Your task to perform on an android device: Add "dell xps" to the cart on target.com Image 0: 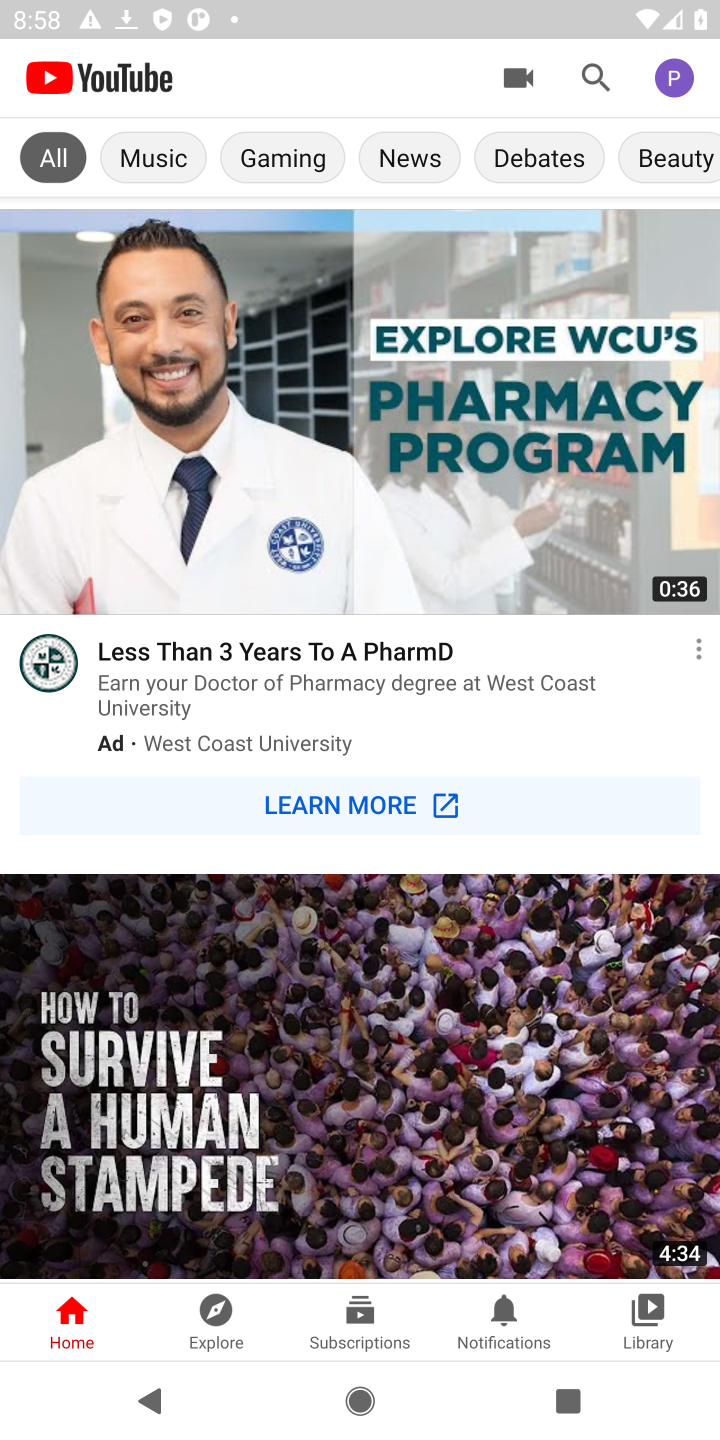
Step 0: press home button
Your task to perform on an android device: Add "dell xps" to the cart on target.com Image 1: 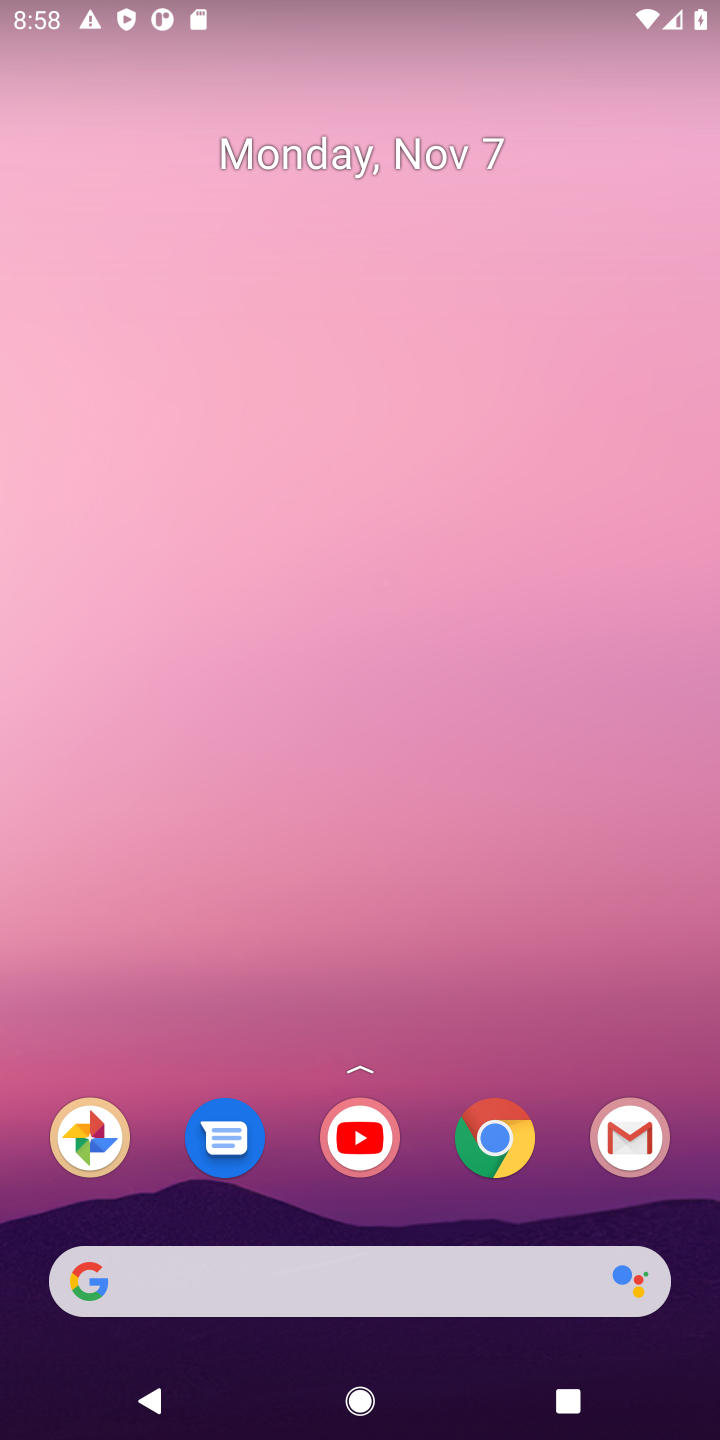
Step 1: drag from (446, 1113) to (380, 346)
Your task to perform on an android device: Add "dell xps" to the cart on target.com Image 2: 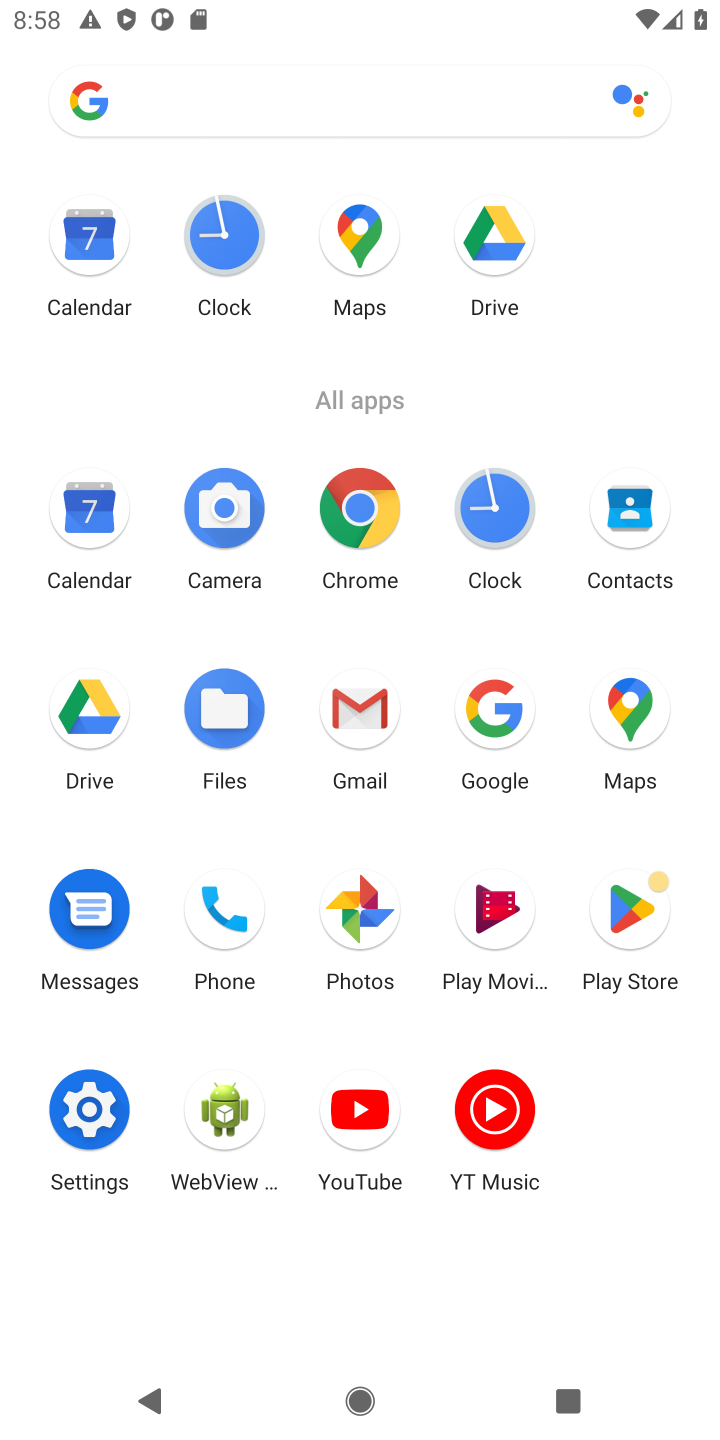
Step 2: click (358, 515)
Your task to perform on an android device: Add "dell xps" to the cart on target.com Image 3: 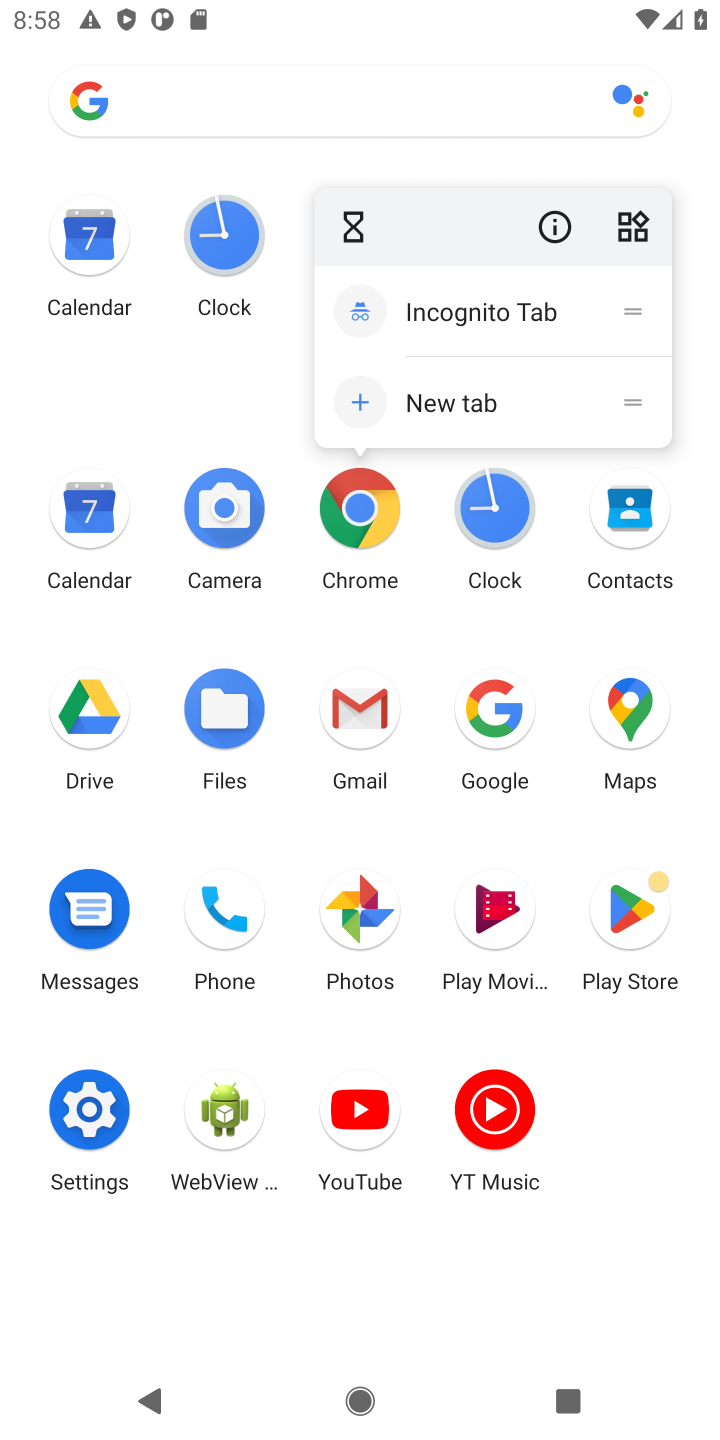
Step 3: click (358, 515)
Your task to perform on an android device: Add "dell xps" to the cart on target.com Image 4: 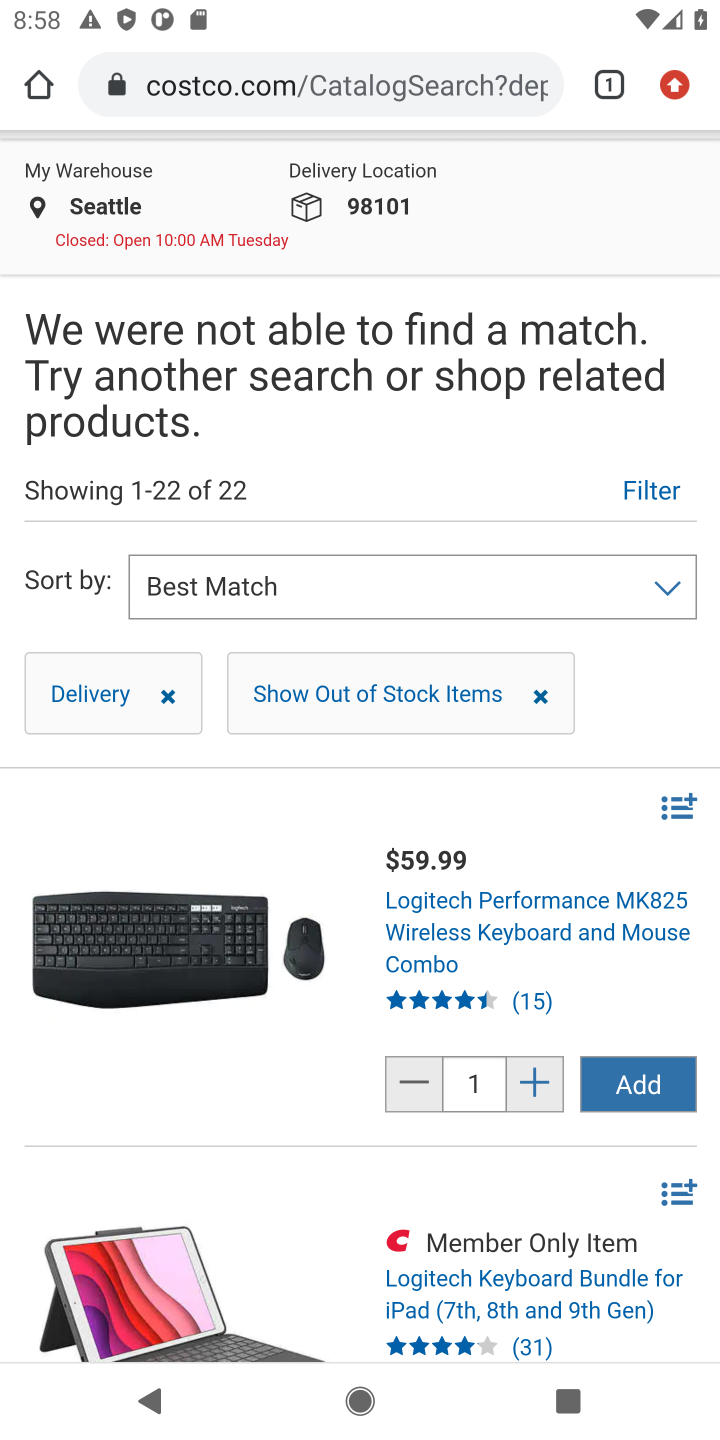
Step 4: click (380, 93)
Your task to perform on an android device: Add "dell xps" to the cart on target.com Image 5: 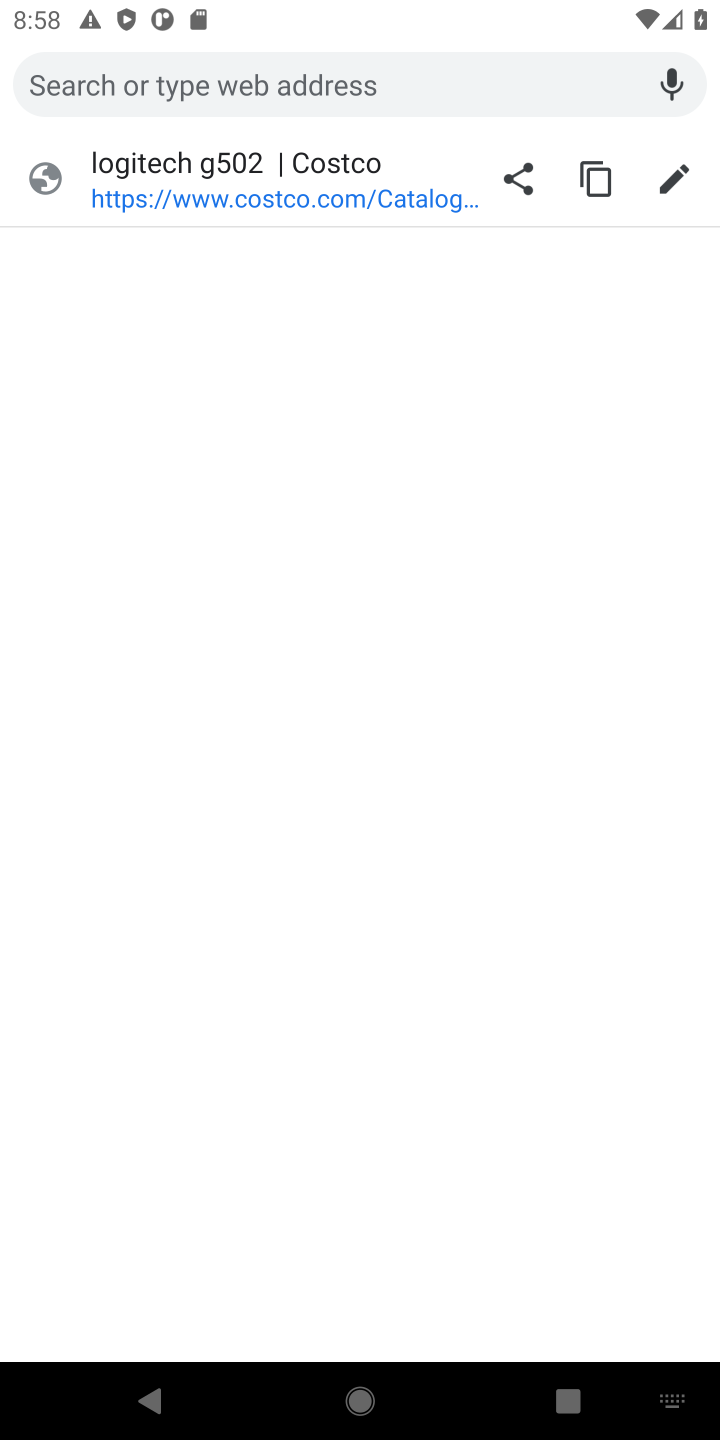
Step 5: type "target.com"
Your task to perform on an android device: Add "dell xps" to the cart on target.com Image 6: 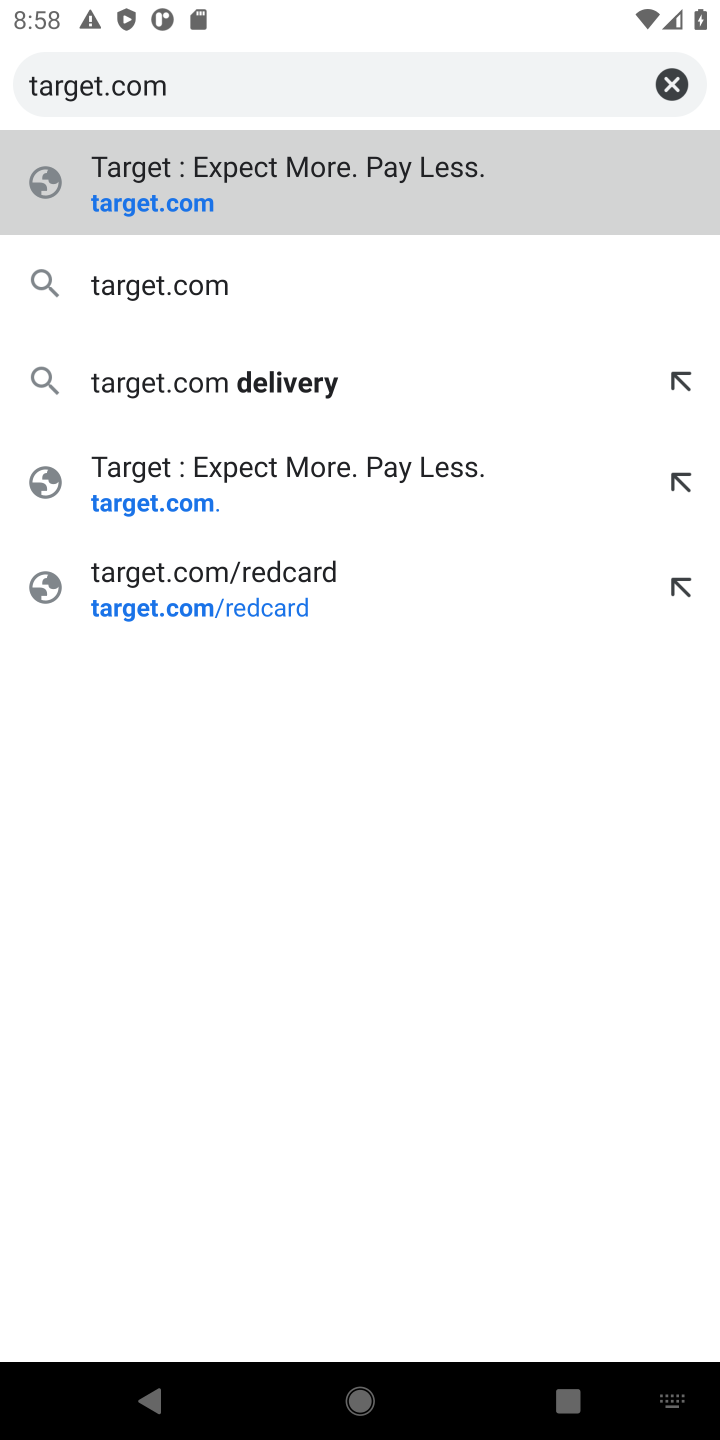
Step 6: press enter
Your task to perform on an android device: Add "dell xps" to the cart on target.com Image 7: 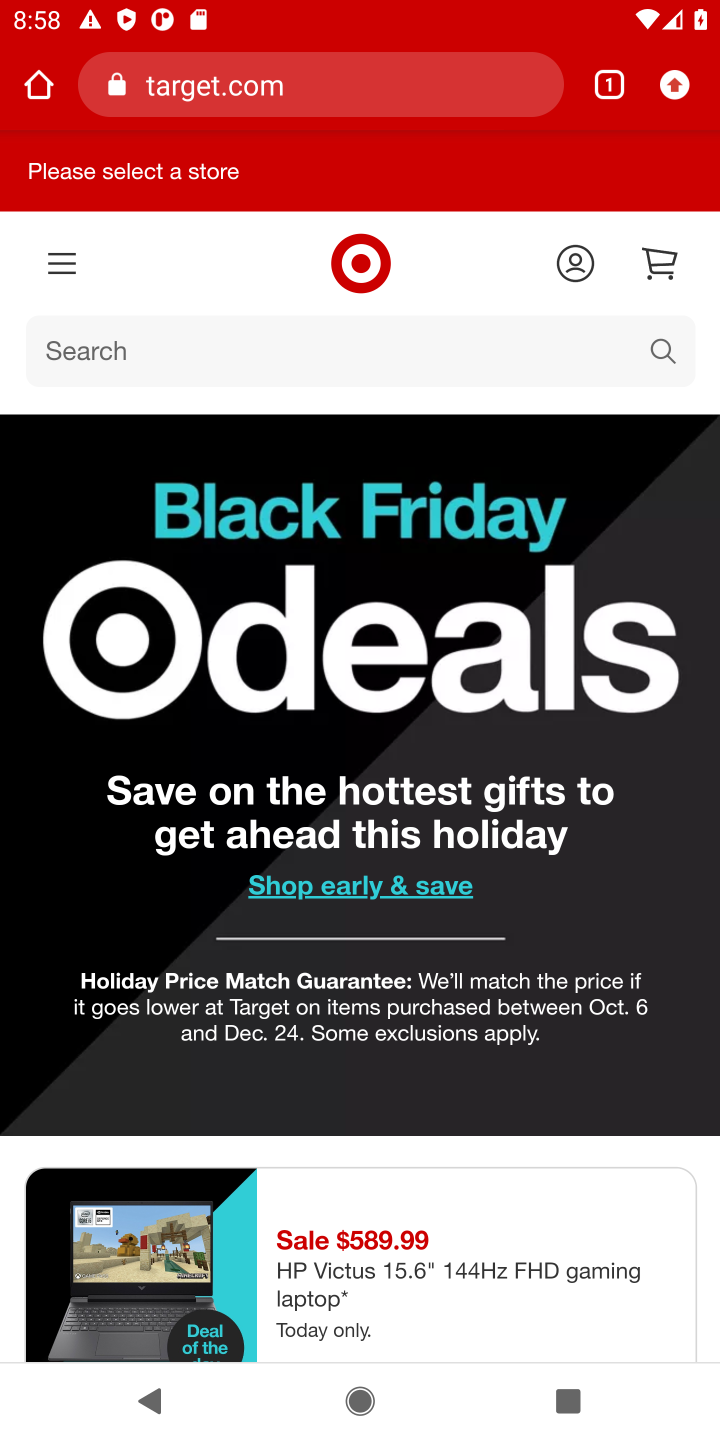
Step 7: click (393, 343)
Your task to perform on an android device: Add "dell xps" to the cart on target.com Image 8: 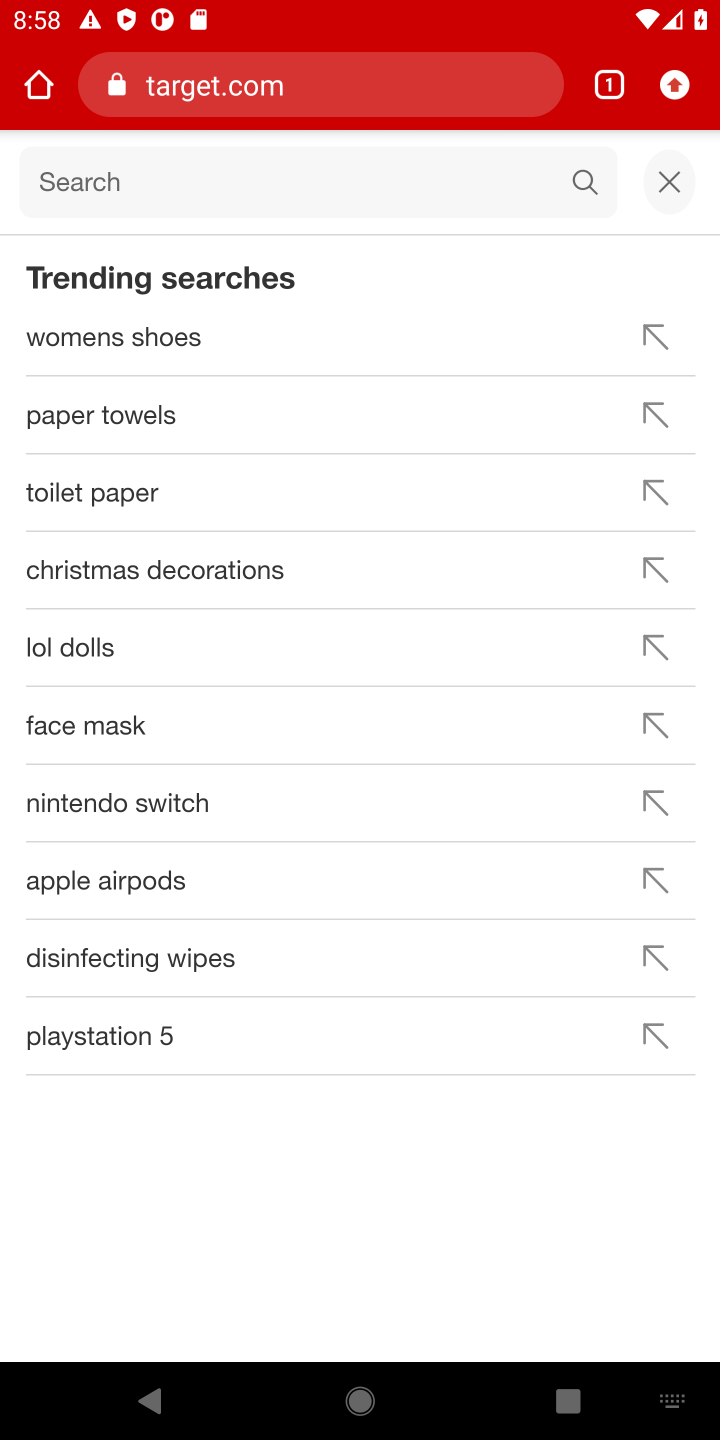
Step 8: type "dell xps"
Your task to perform on an android device: Add "dell xps" to the cart on target.com Image 9: 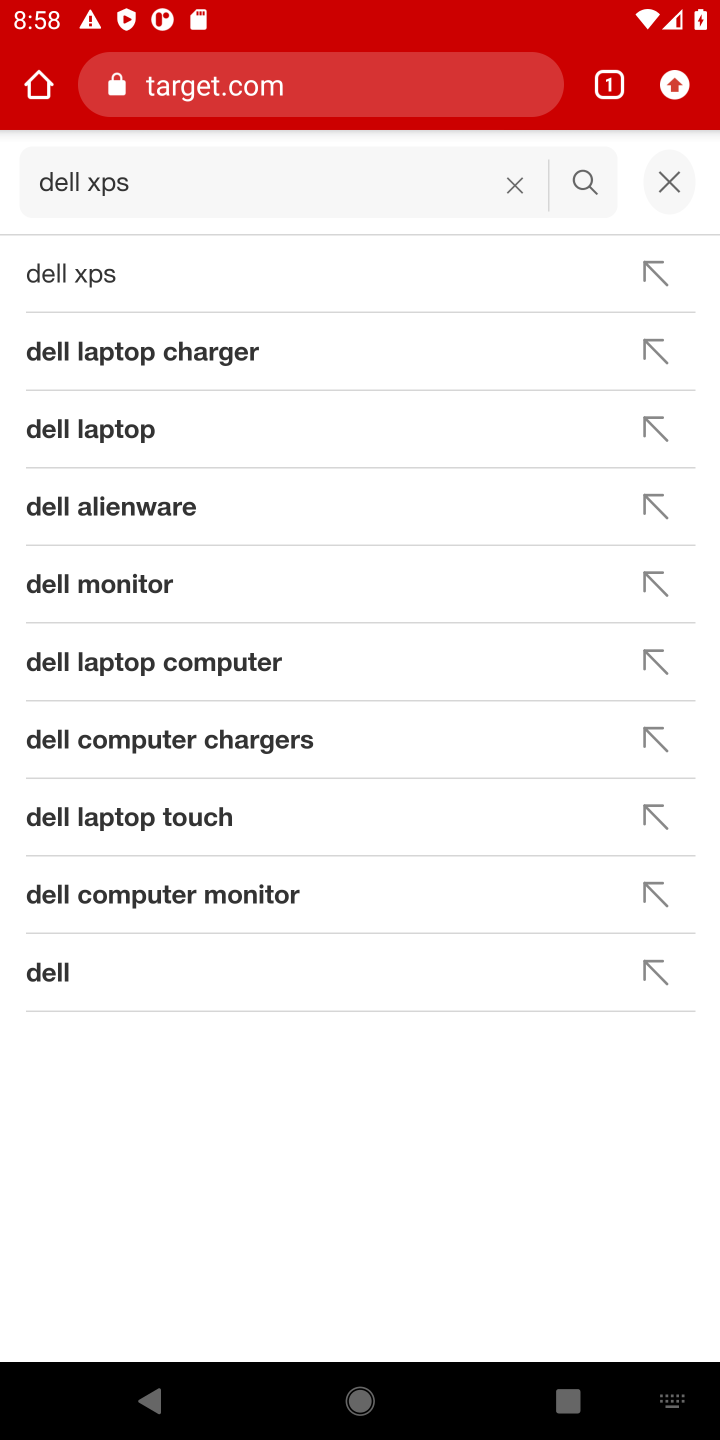
Step 9: press enter
Your task to perform on an android device: Add "dell xps" to the cart on target.com Image 10: 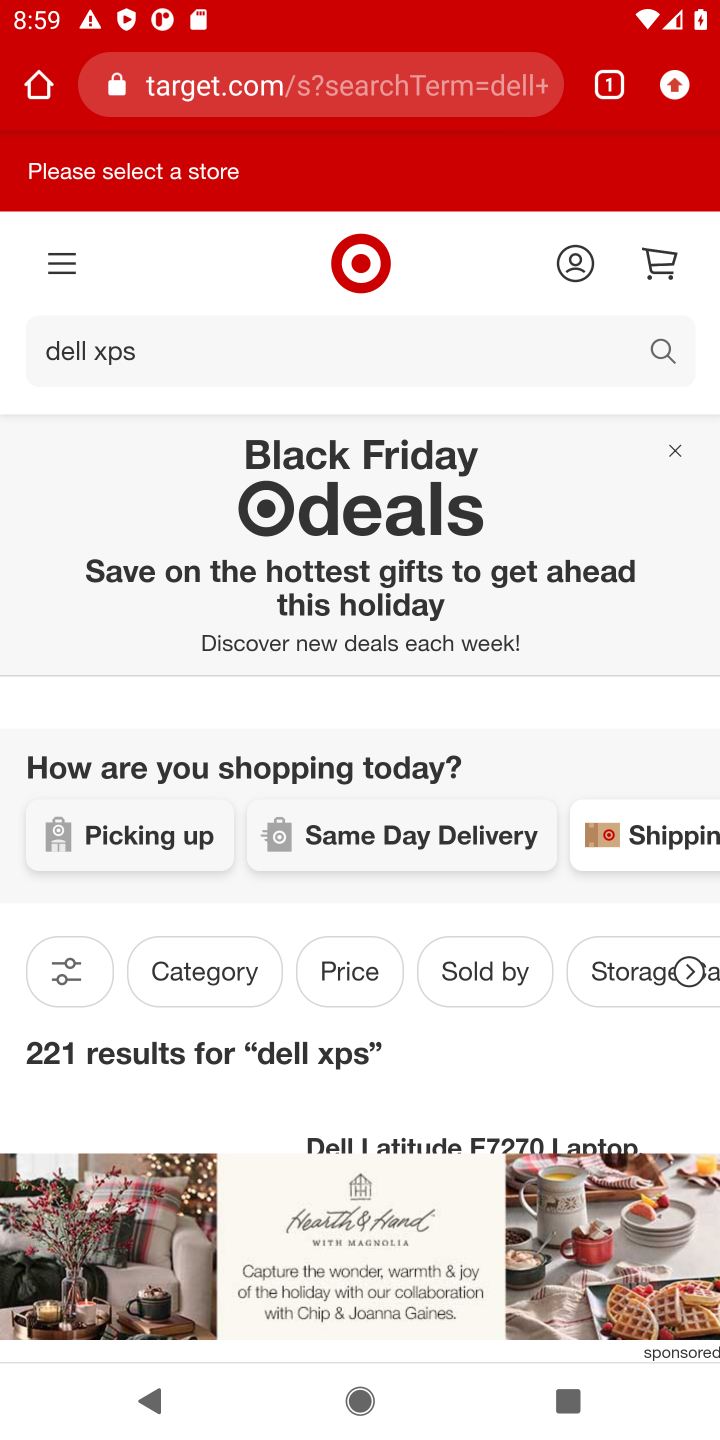
Step 10: drag from (433, 1230) to (398, 422)
Your task to perform on an android device: Add "dell xps" to the cart on target.com Image 11: 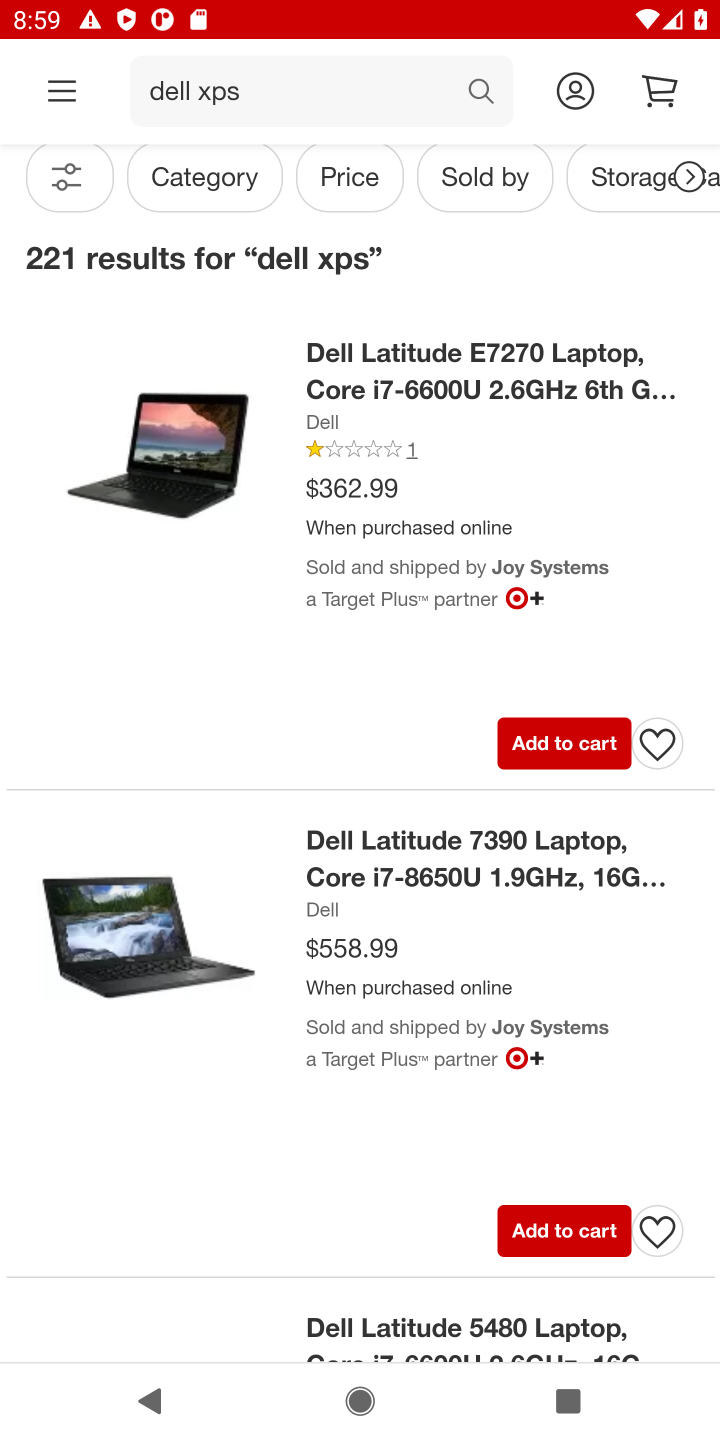
Step 11: drag from (375, 979) to (447, 1109)
Your task to perform on an android device: Add "dell xps" to the cart on target.com Image 12: 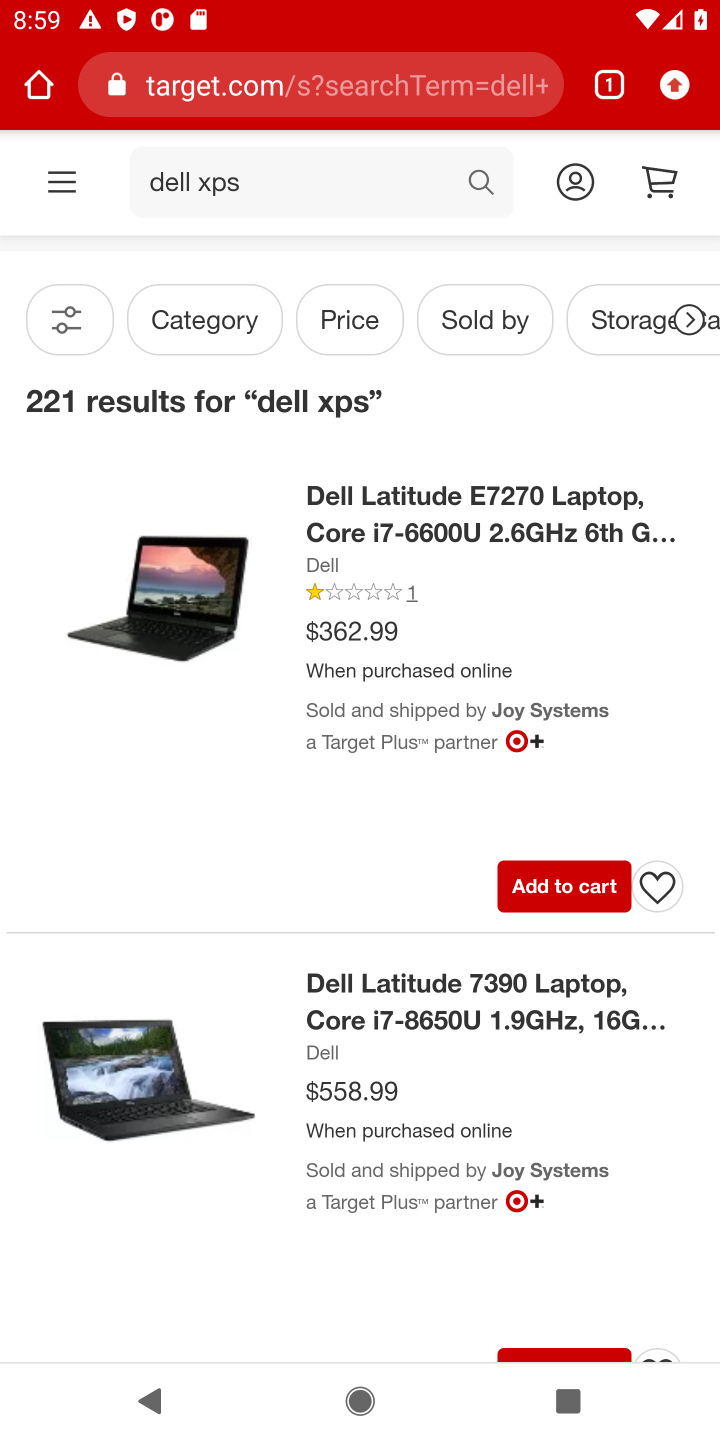
Step 12: click (428, 526)
Your task to perform on an android device: Add "dell xps" to the cart on target.com Image 13: 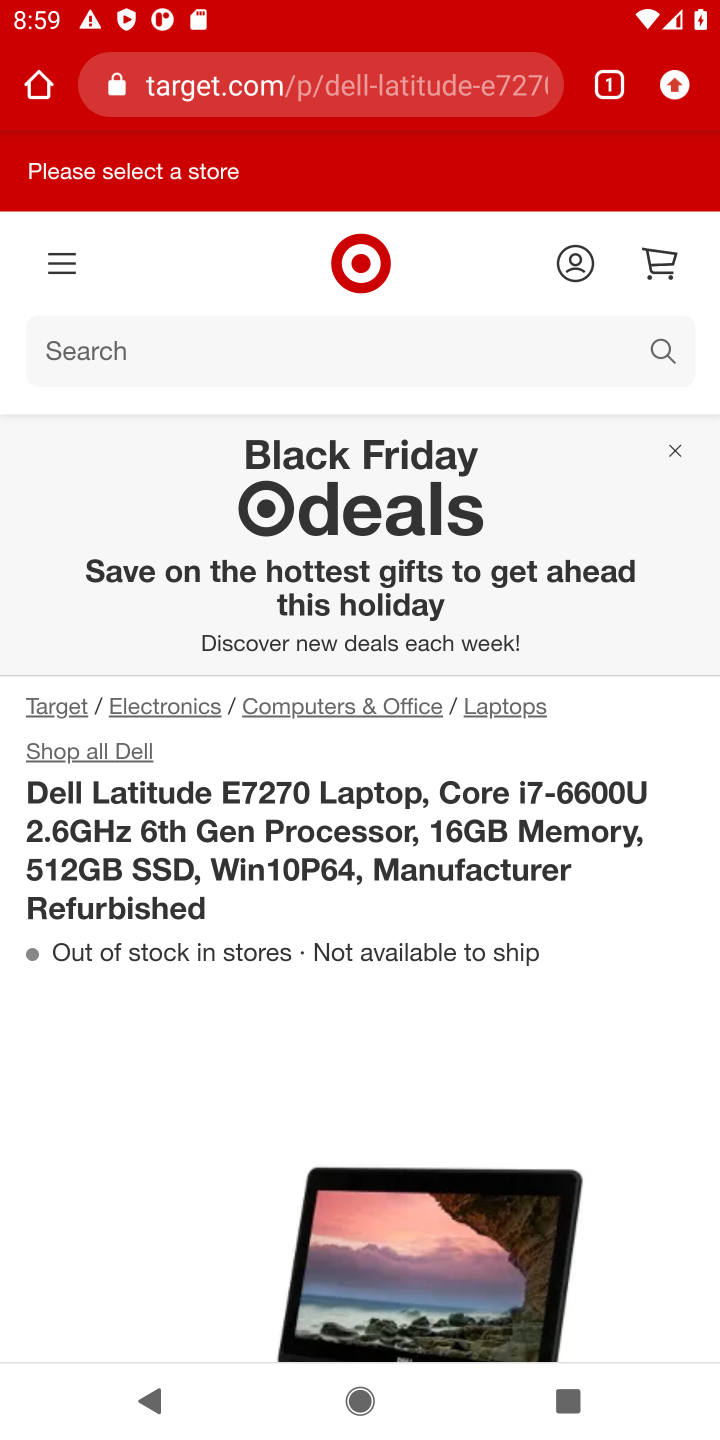
Step 13: drag from (465, 1017) to (424, 463)
Your task to perform on an android device: Add "dell xps" to the cart on target.com Image 14: 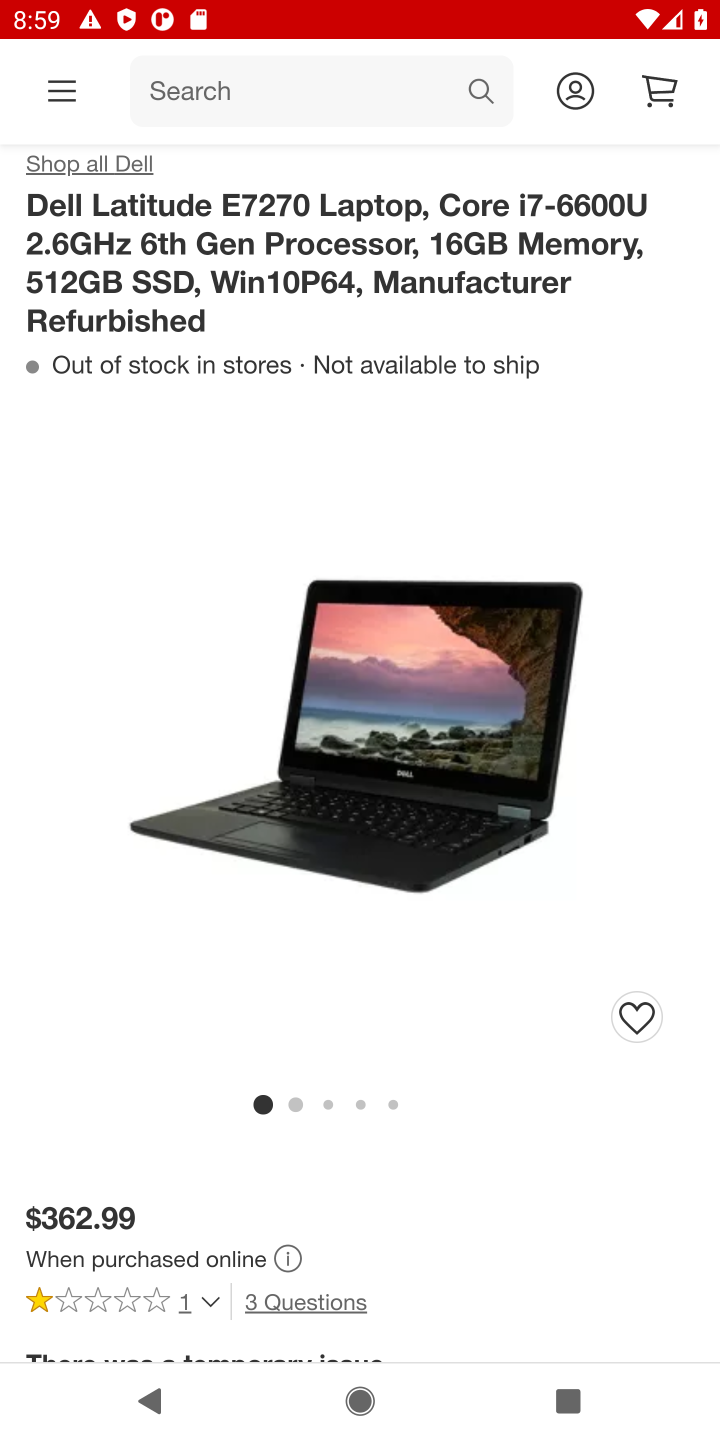
Step 14: drag from (389, 1028) to (411, 452)
Your task to perform on an android device: Add "dell xps" to the cart on target.com Image 15: 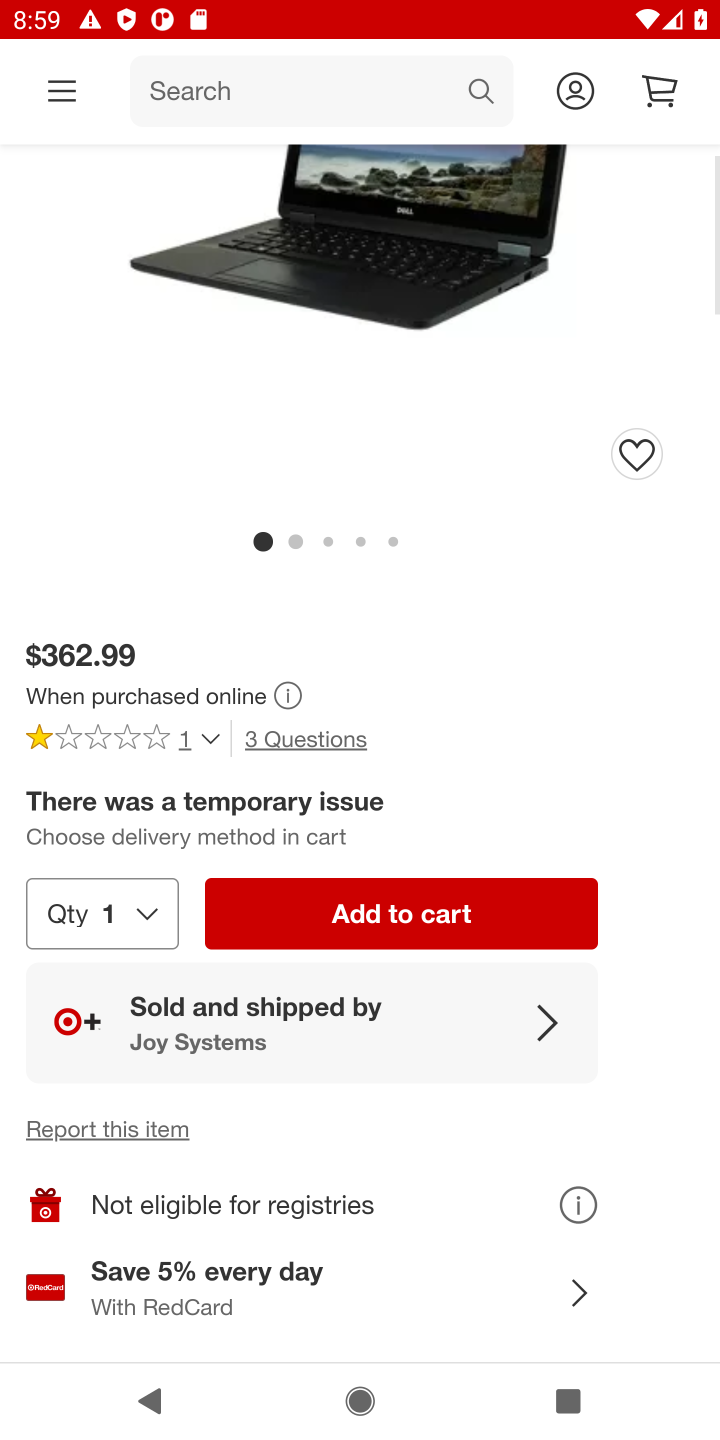
Step 15: drag from (411, 452) to (394, 1255)
Your task to perform on an android device: Add "dell xps" to the cart on target.com Image 16: 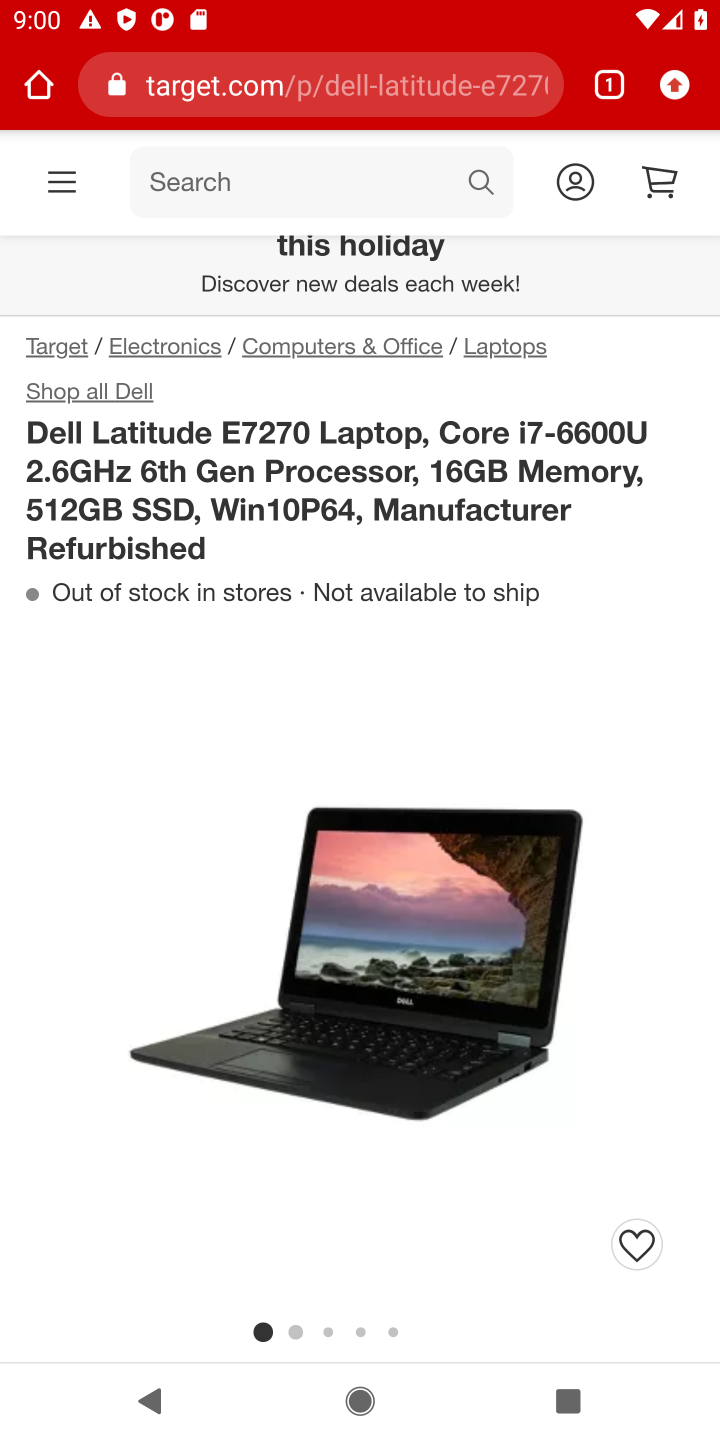
Step 16: click (409, 481)
Your task to perform on an android device: Add "dell xps" to the cart on target.com Image 17: 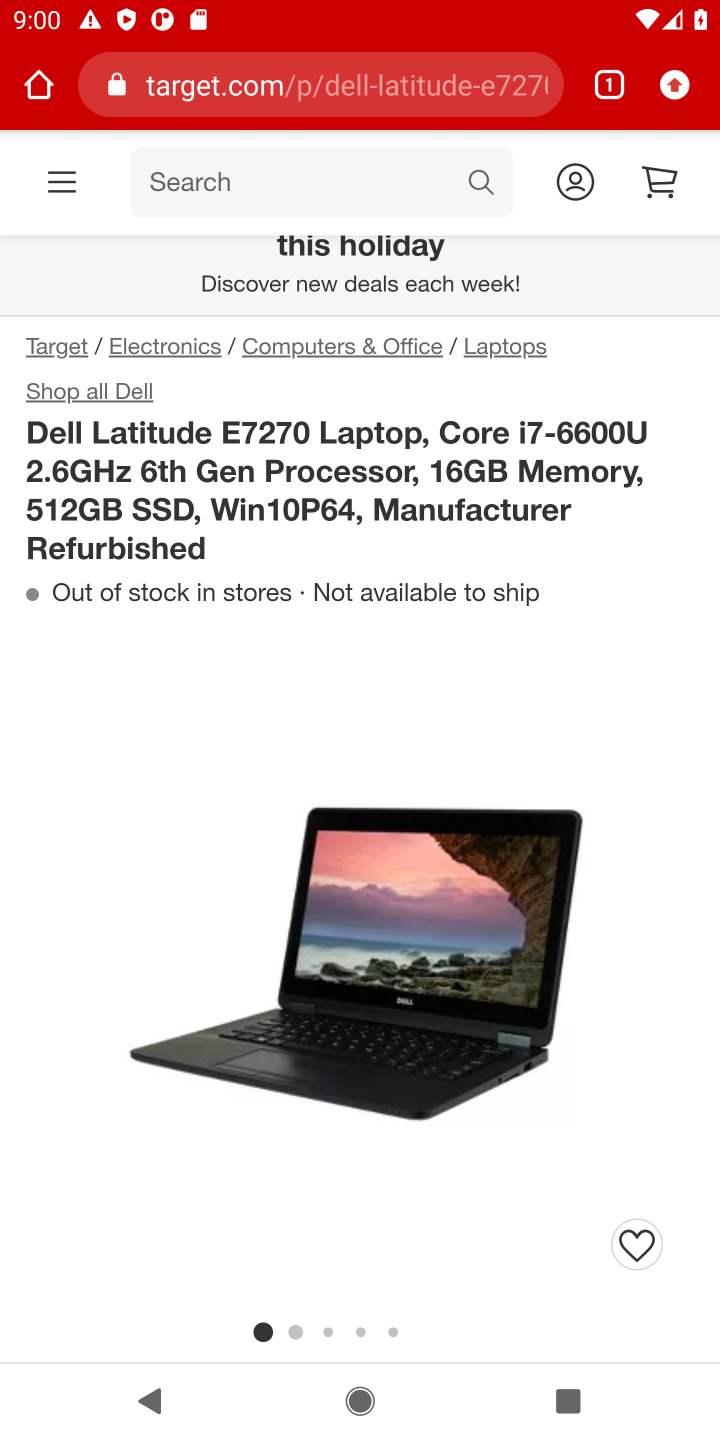
Step 17: drag from (303, 786) to (359, 269)
Your task to perform on an android device: Add "dell xps" to the cart on target.com Image 18: 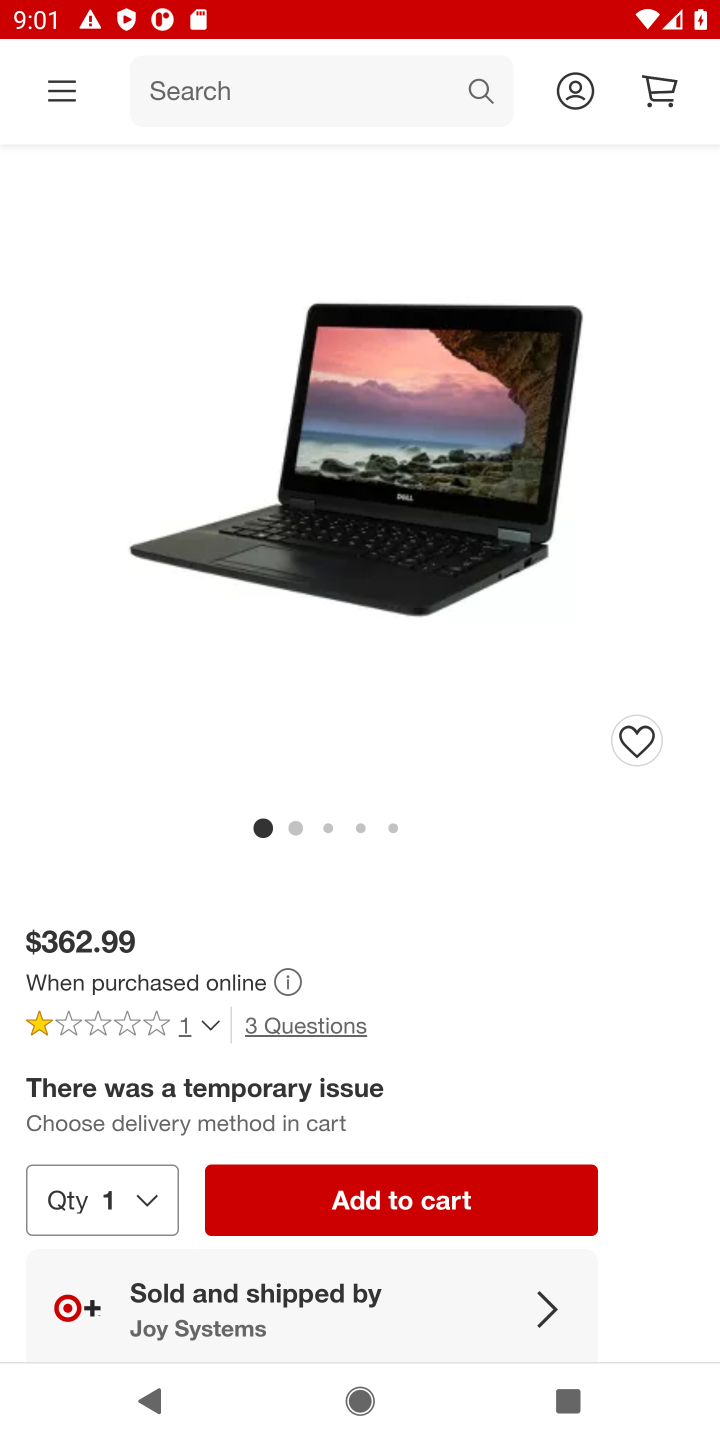
Step 18: click (448, 1202)
Your task to perform on an android device: Add "dell xps" to the cart on target.com Image 19: 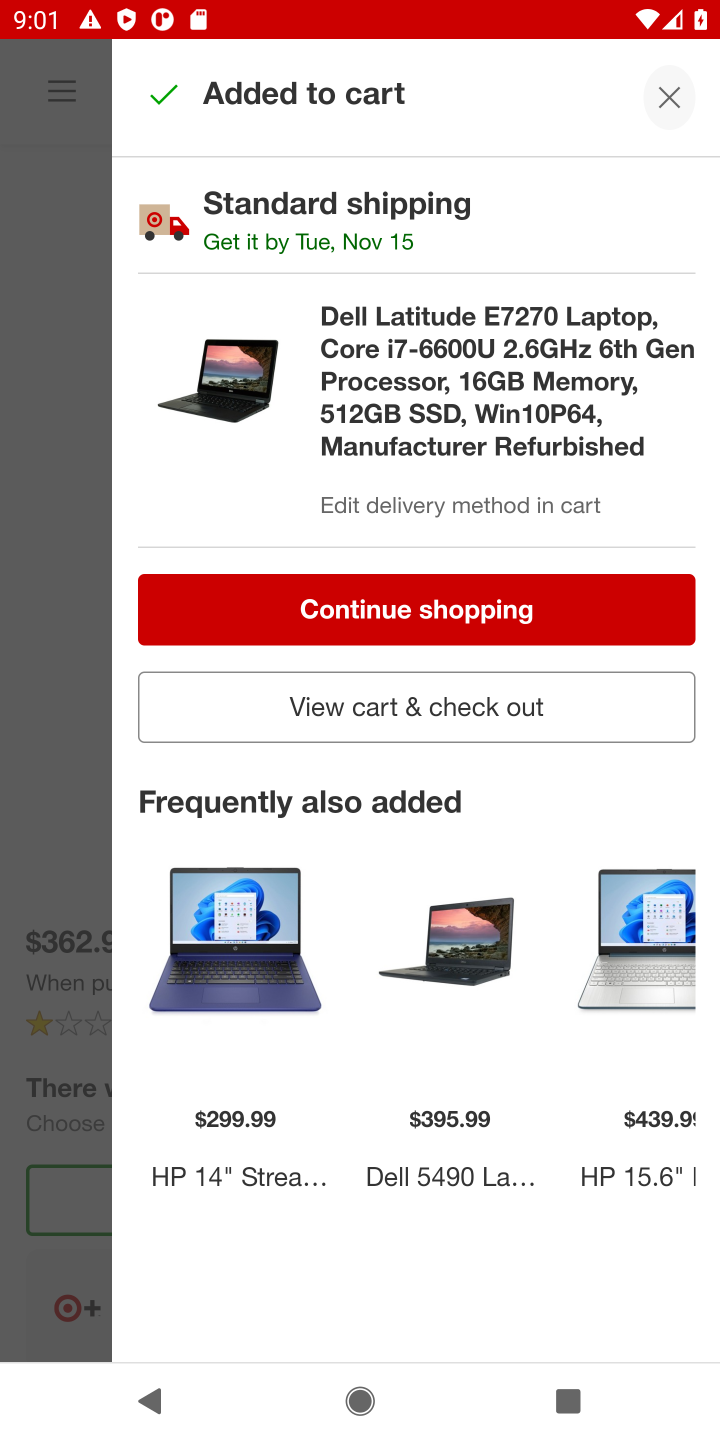
Step 19: task complete